Your task to perform on an android device: turn on the 12-hour format for clock Image 0: 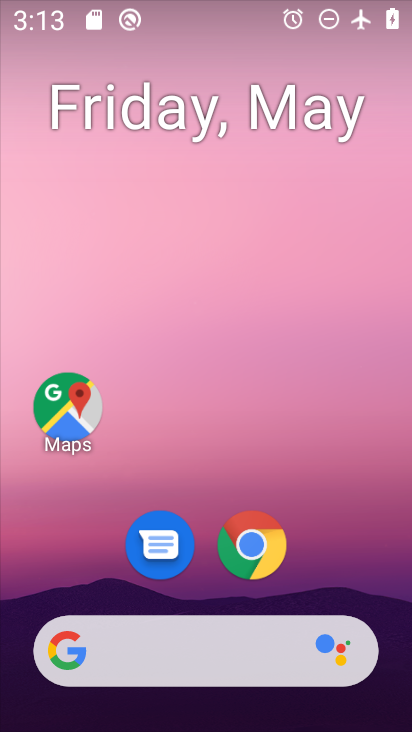
Step 0: drag from (308, 536) to (330, 261)
Your task to perform on an android device: turn on the 12-hour format for clock Image 1: 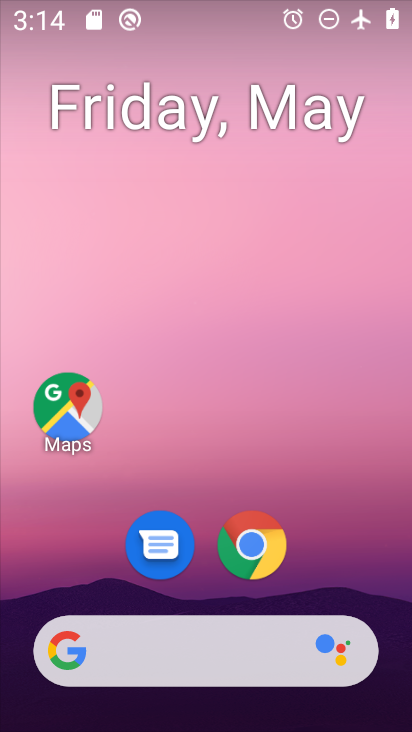
Step 1: drag from (300, 541) to (251, 218)
Your task to perform on an android device: turn on the 12-hour format for clock Image 2: 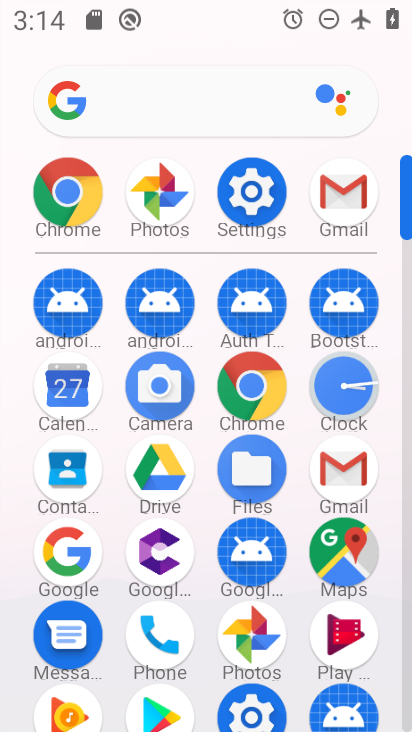
Step 2: click (335, 386)
Your task to perform on an android device: turn on the 12-hour format for clock Image 3: 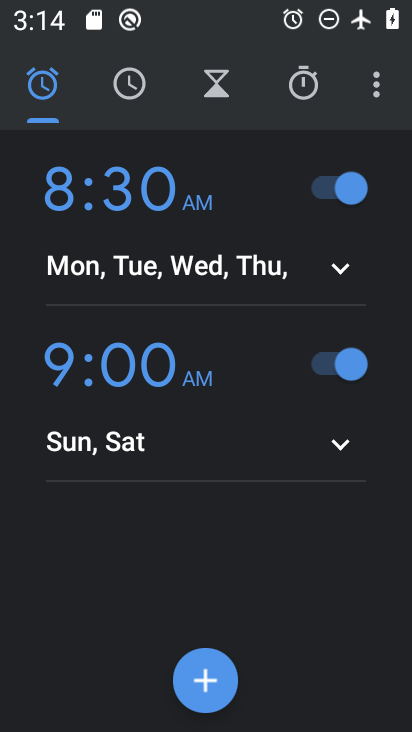
Step 3: click (389, 74)
Your task to perform on an android device: turn on the 12-hour format for clock Image 4: 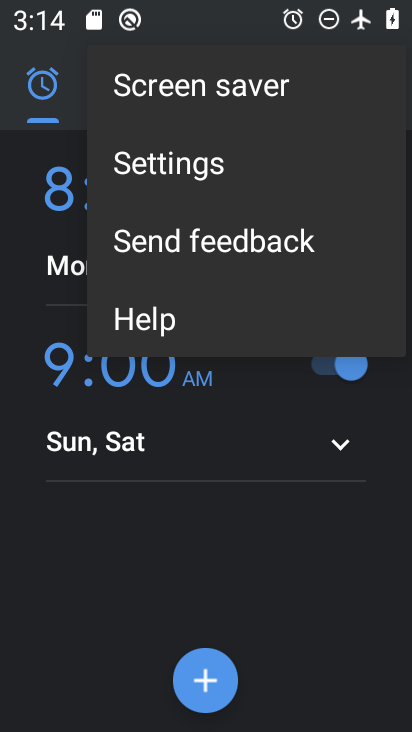
Step 4: click (128, 171)
Your task to perform on an android device: turn on the 12-hour format for clock Image 5: 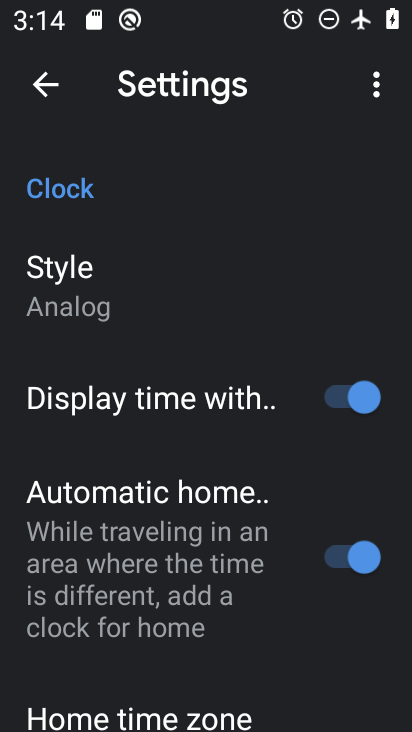
Step 5: drag from (225, 614) to (218, 291)
Your task to perform on an android device: turn on the 12-hour format for clock Image 6: 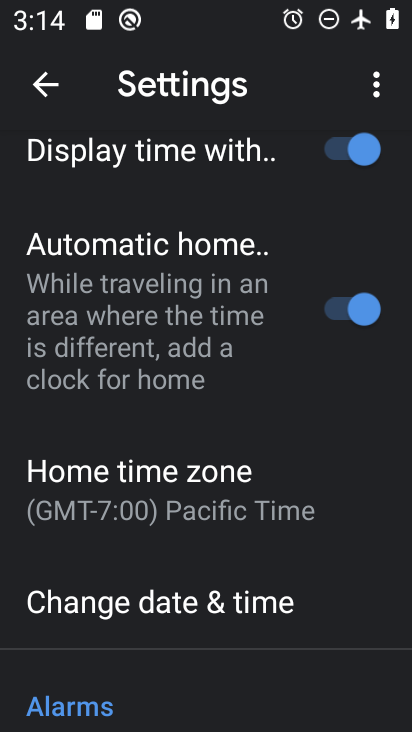
Step 6: drag from (193, 683) to (240, 345)
Your task to perform on an android device: turn on the 12-hour format for clock Image 7: 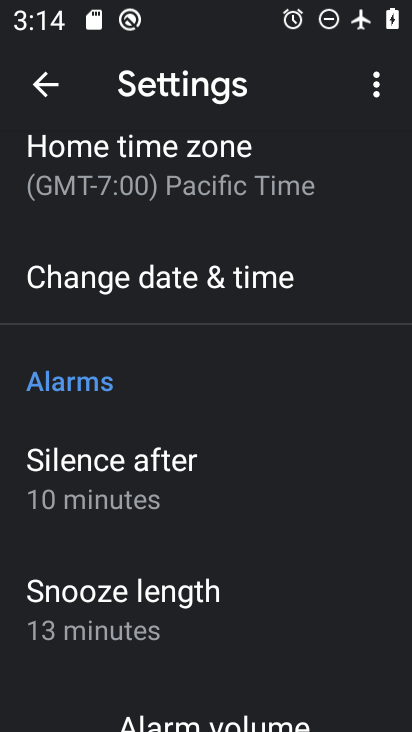
Step 7: drag from (213, 657) to (254, 591)
Your task to perform on an android device: turn on the 12-hour format for clock Image 8: 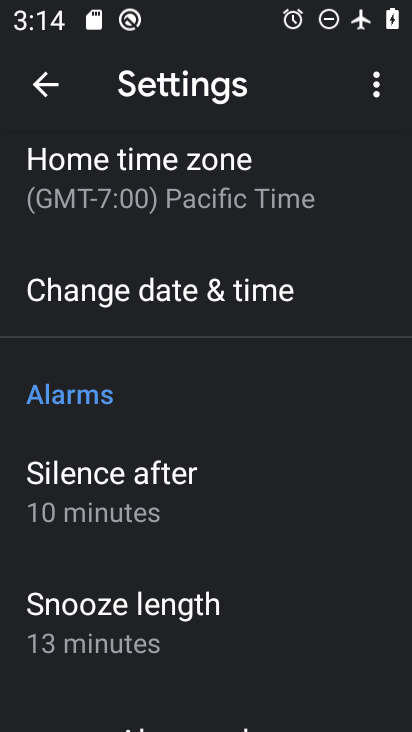
Step 8: click (205, 289)
Your task to perform on an android device: turn on the 12-hour format for clock Image 9: 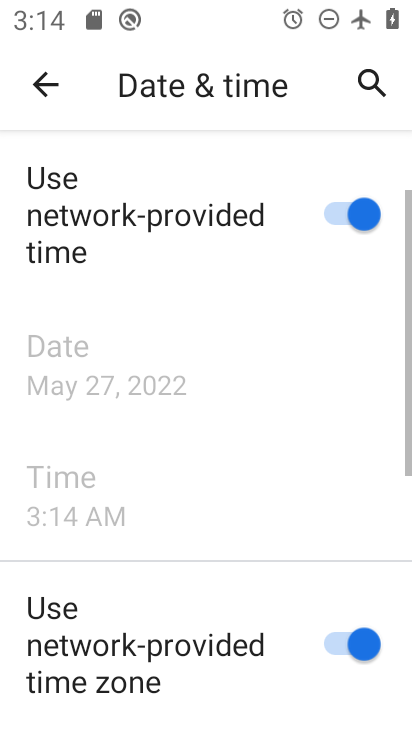
Step 9: drag from (251, 605) to (288, 213)
Your task to perform on an android device: turn on the 12-hour format for clock Image 10: 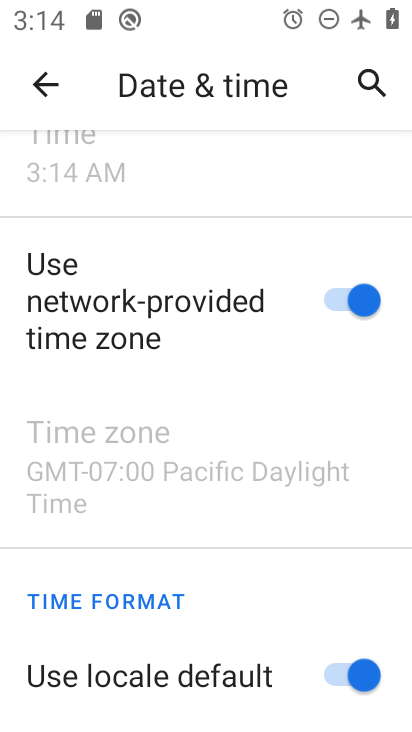
Step 10: drag from (251, 581) to (262, 308)
Your task to perform on an android device: turn on the 12-hour format for clock Image 11: 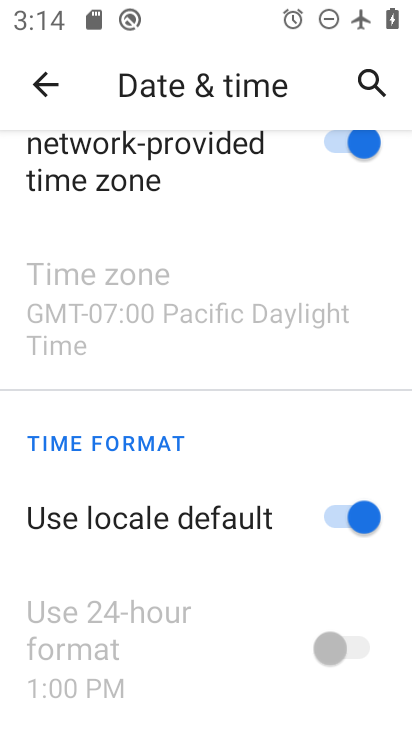
Step 11: click (339, 505)
Your task to perform on an android device: turn on the 12-hour format for clock Image 12: 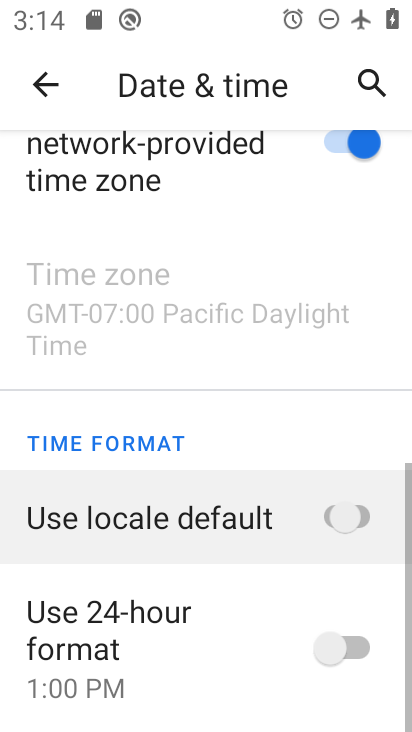
Step 12: click (358, 633)
Your task to perform on an android device: turn on the 12-hour format for clock Image 13: 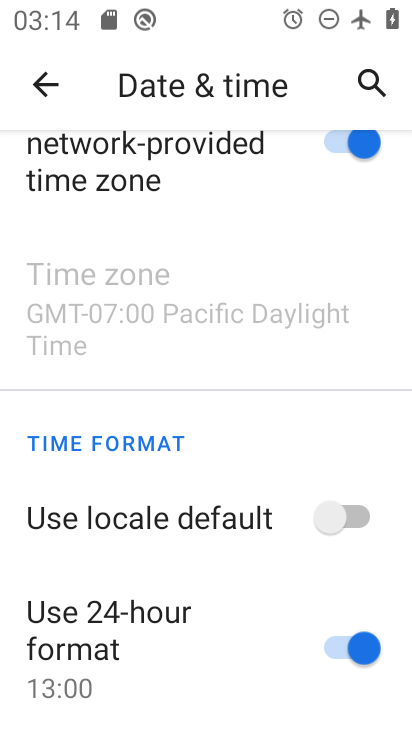
Step 13: task complete